Your task to perform on an android device: Go to CNN.com Image 0: 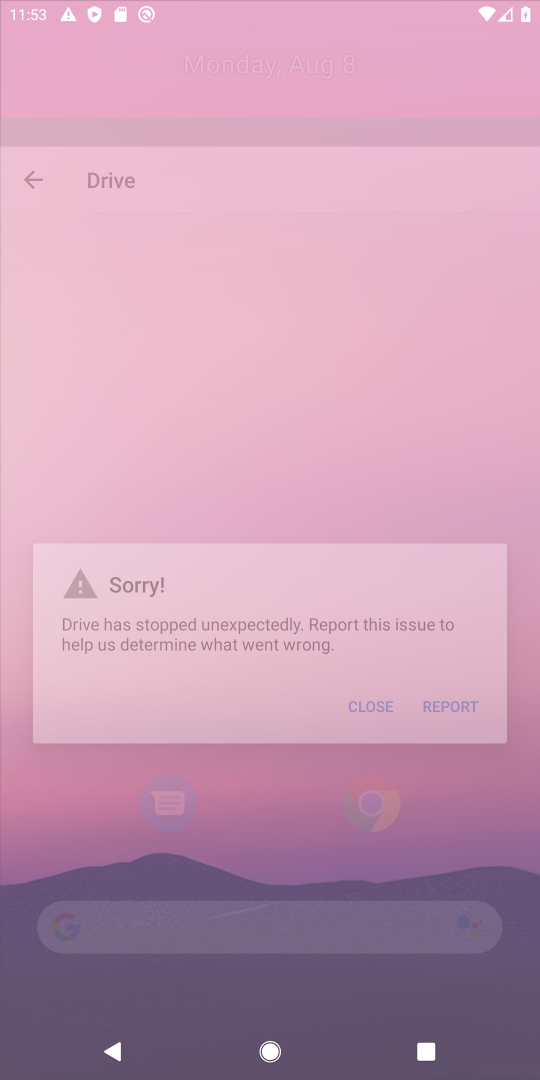
Step 0: press home button
Your task to perform on an android device: Go to CNN.com Image 1: 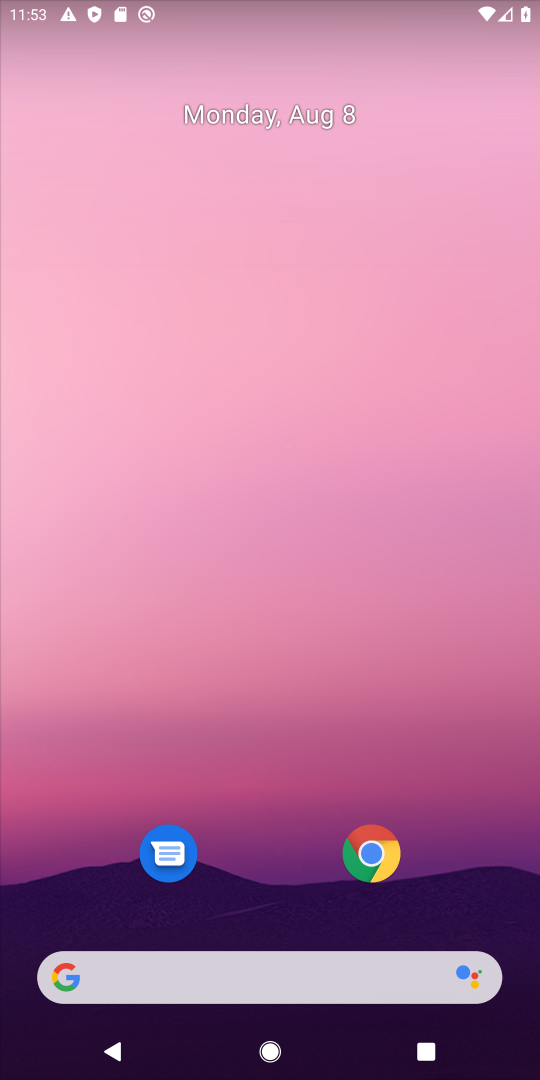
Step 1: click (361, 850)
Your task to perform on an android device: Go to CNN.com Image 2: 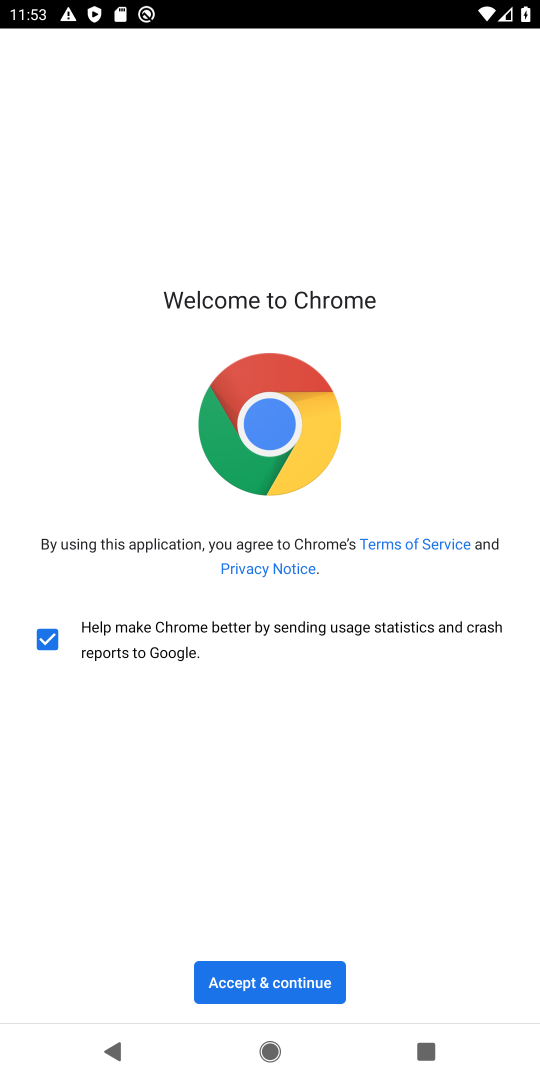
Step 2: click (273, 986)
Your task to perform on an android device: Go to CNN.com Image 3: 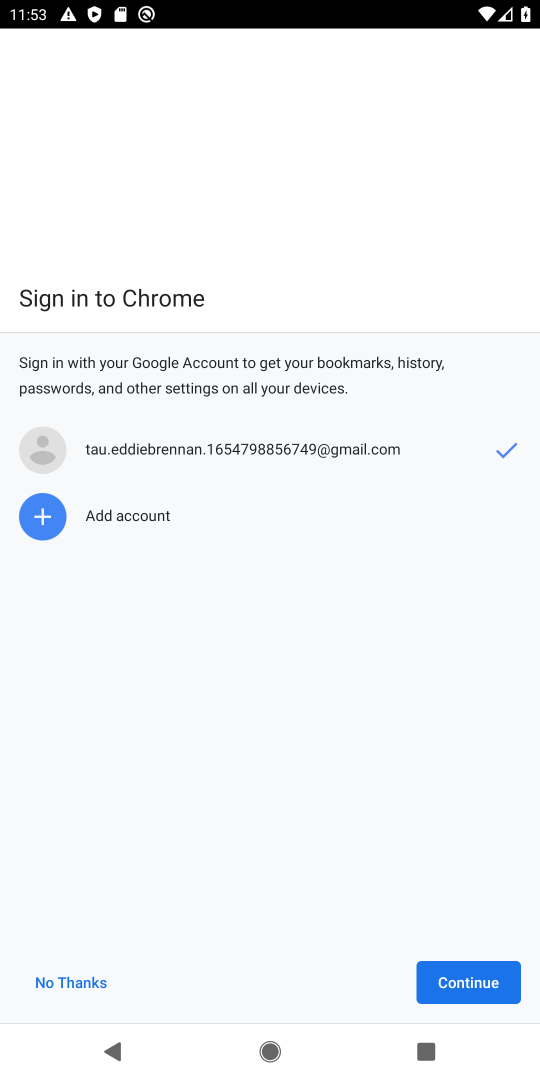
Step 3: click (472, 981)
Your task to perform on an android device: Go to CNN.com Image 4: 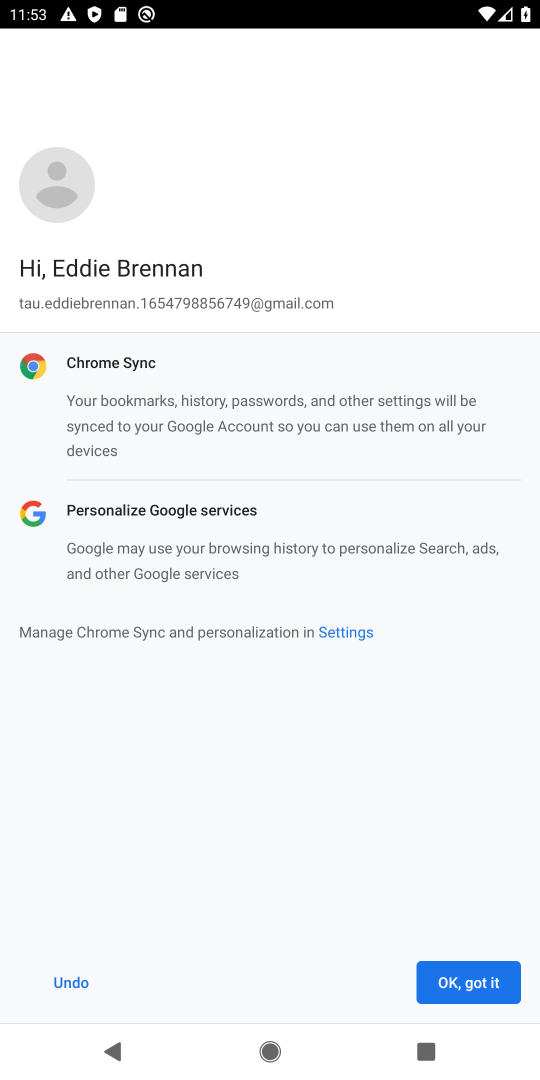
Step 4: click (490, 981)
Your task to perform on an android device: Go to CNN.com Image 5: 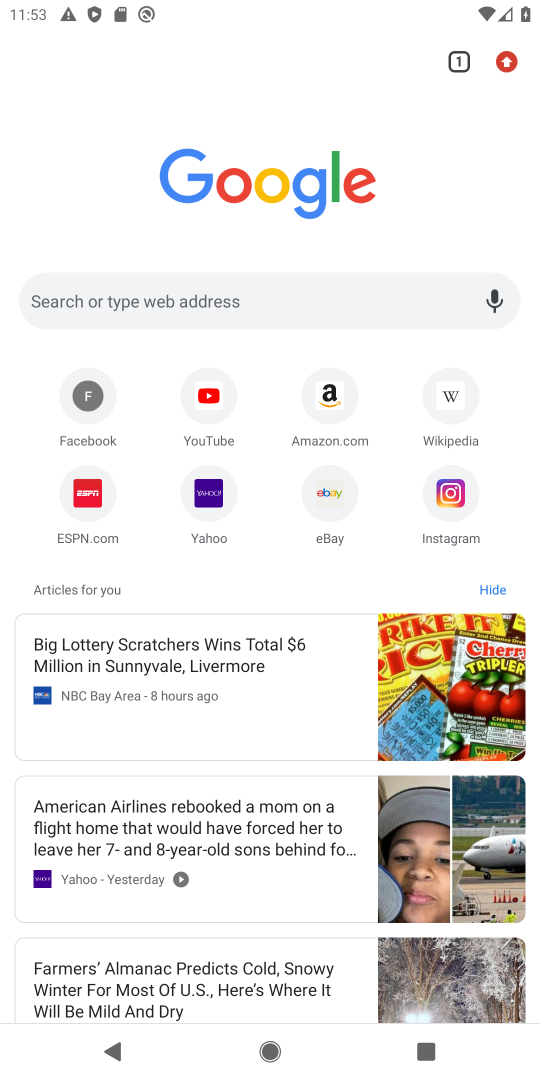
Step 5: click (293, 300)
Your task to perform on an android device: Go to CNN.com Image 6: 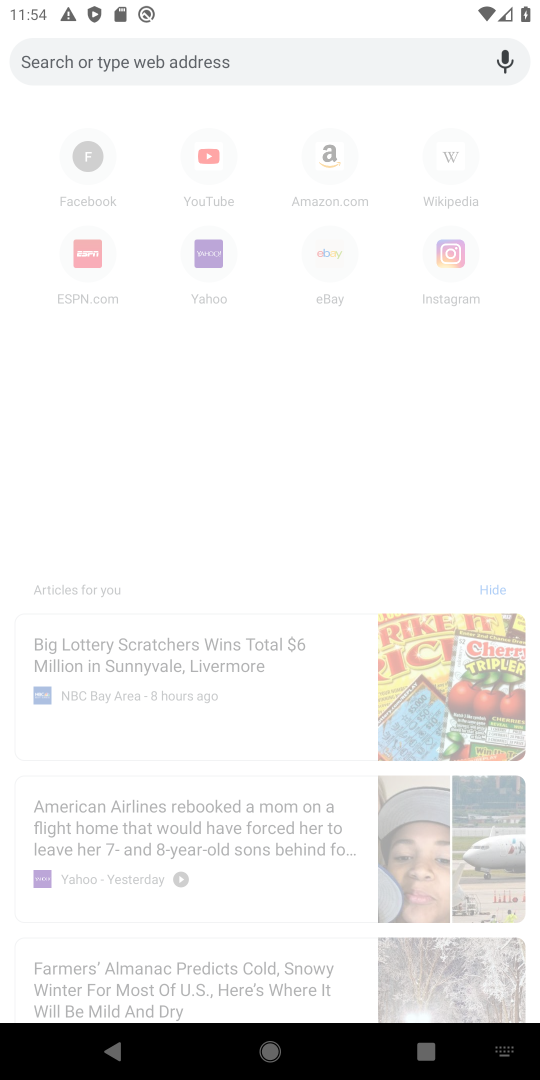
Step 6: type "cnn.com"
Your task to perform on an android device: Go to CNN.com Image 7: 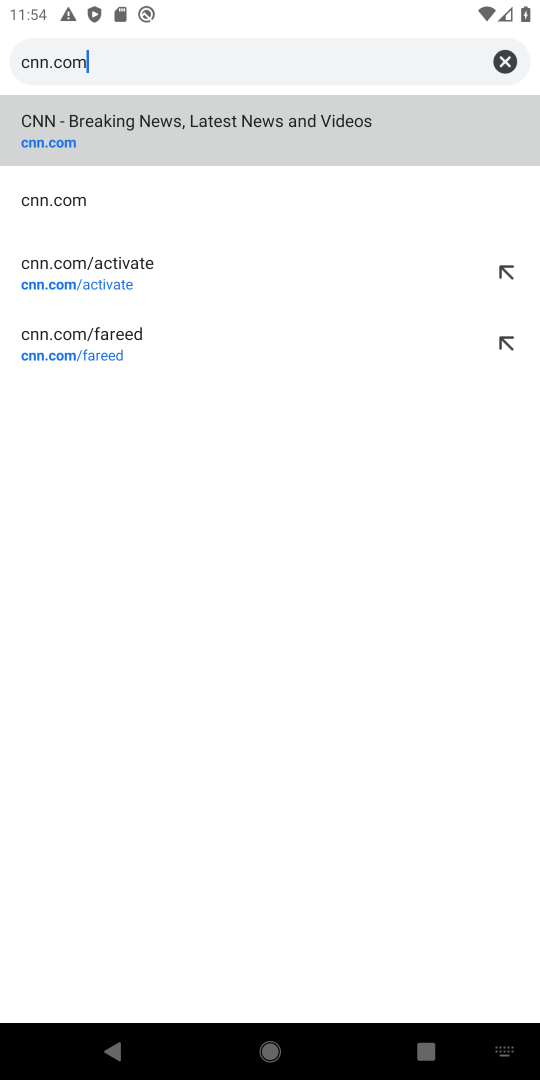
Step 7: click (231, 67)
Your task to perform on an android device: Go to CNN.com Image 8: 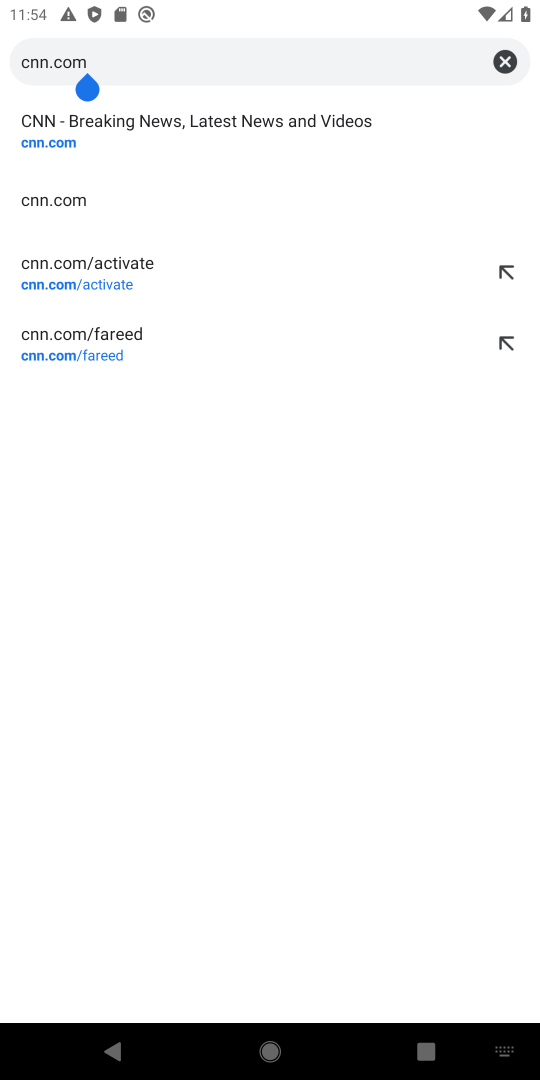
Step 8: click (227, 134)
Your task to perform on an android device: Go to CNN.com Image 9: 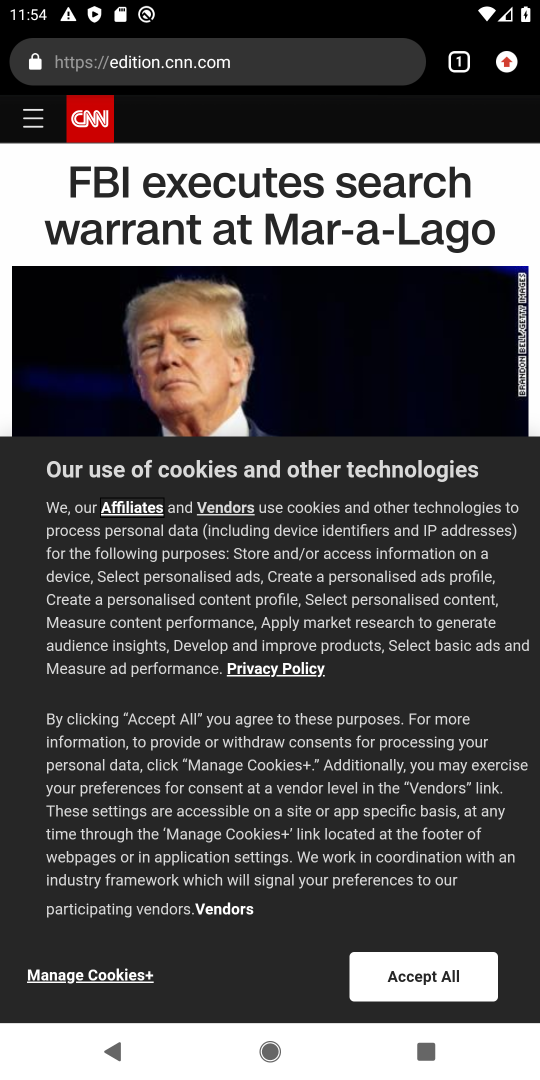
Step 9: task complete